Your task to perform on an android device: Add "macbook" to the cart on costco, then select checkout. Image 0: 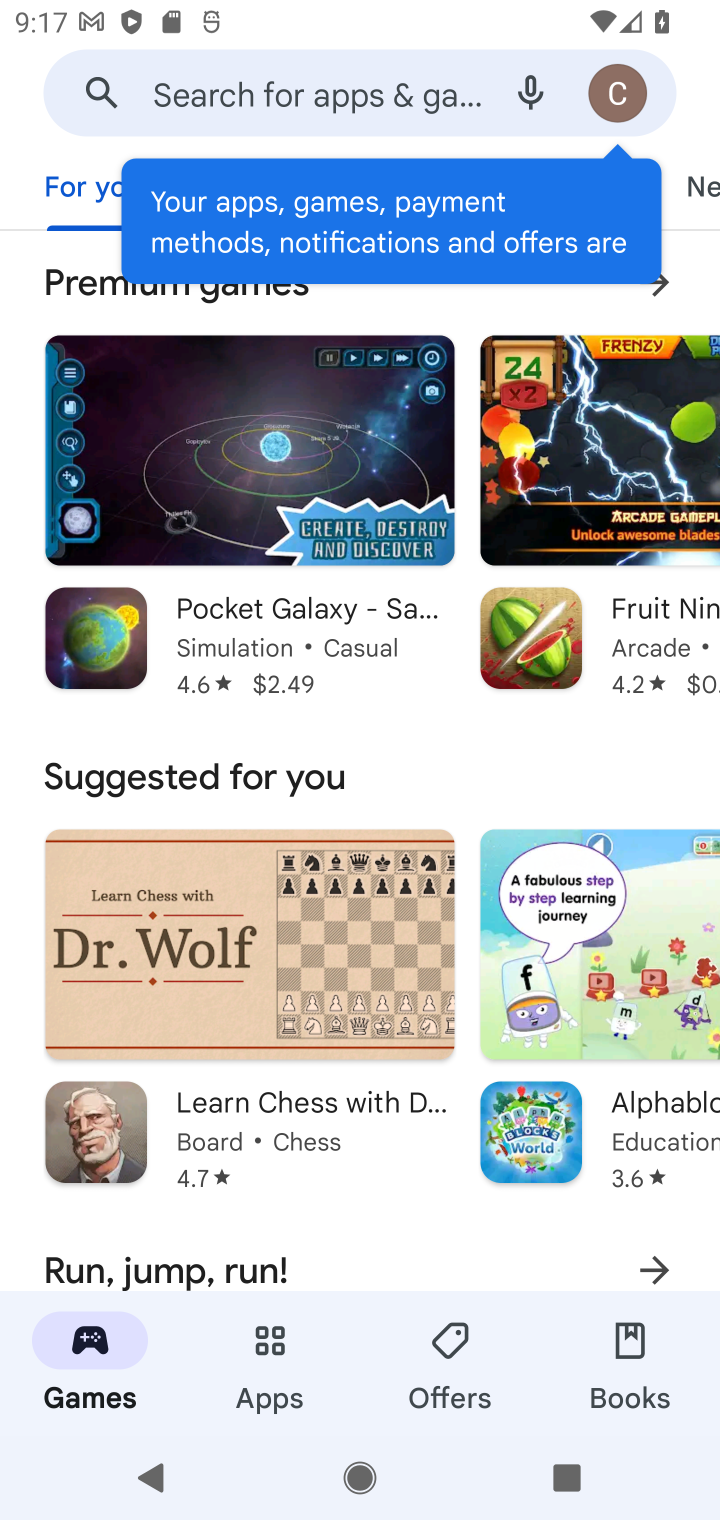
Step 0: press home button
Your task to perform on an android device: Add "macbook" to the cart on costco, then select checkout. Image 1: 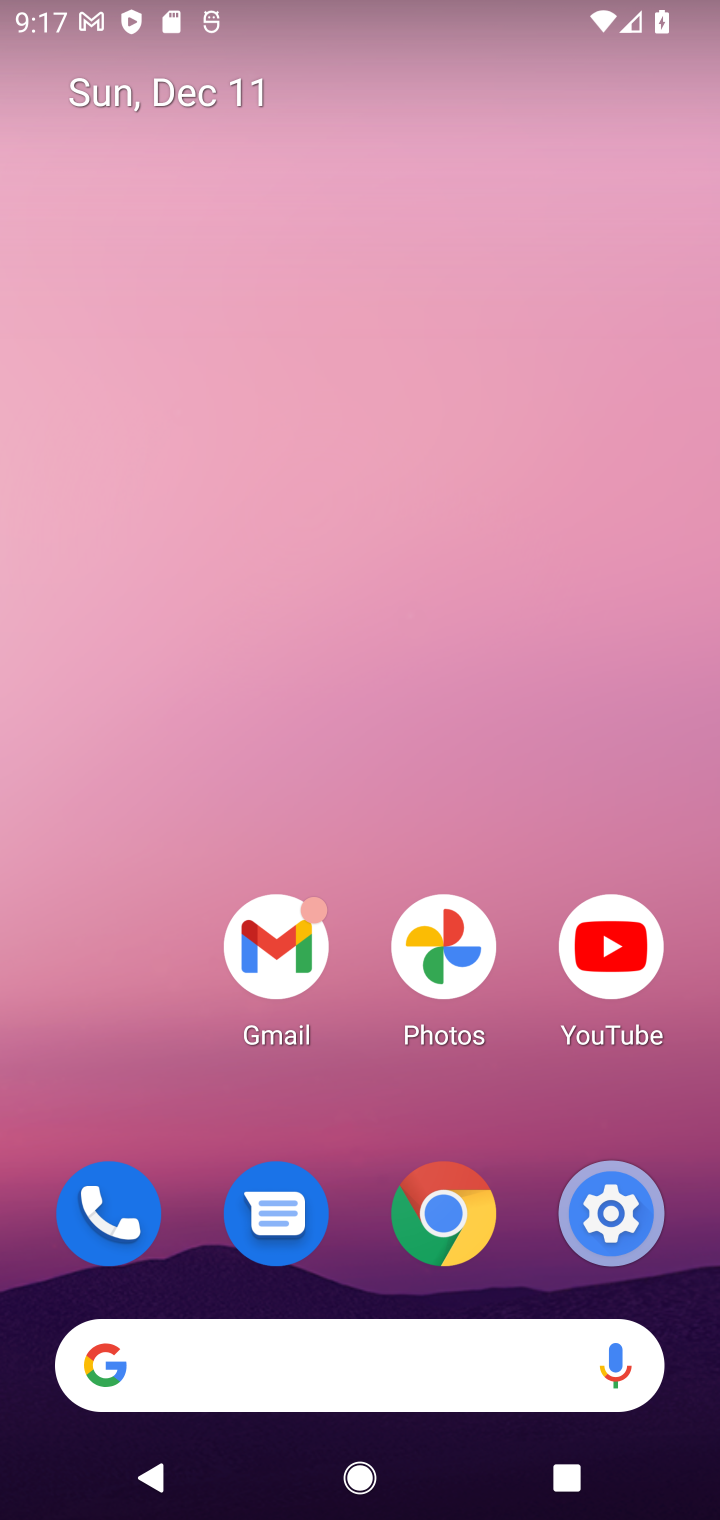
Step 1: click (456, 1325)
Your task to perform on an android device: Add "macbook" to the cart on costco, then select checkout. Image 2: 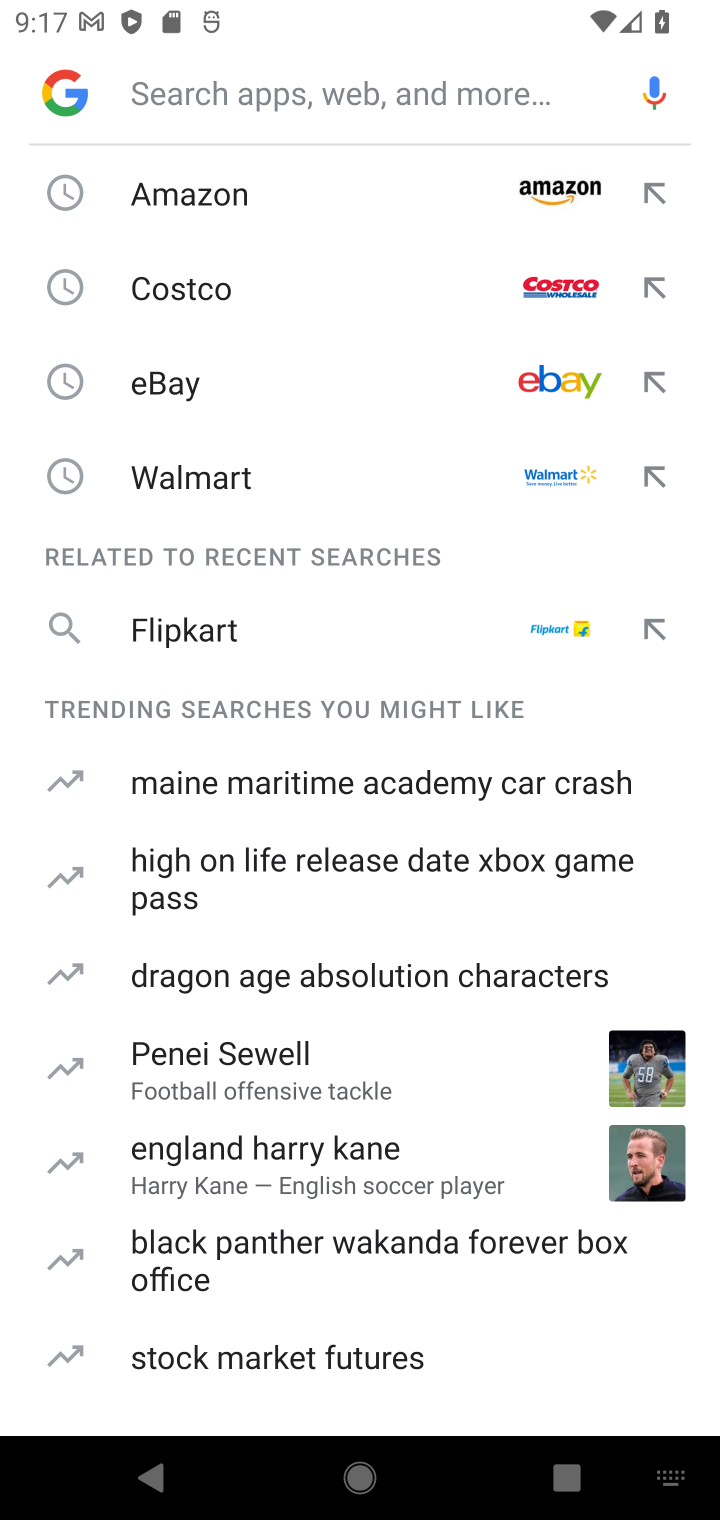
Step 2: click (301, 295)
Your task to perform on an android device: Add "macbook" to the cart on costco, then select checkout. Image 3: 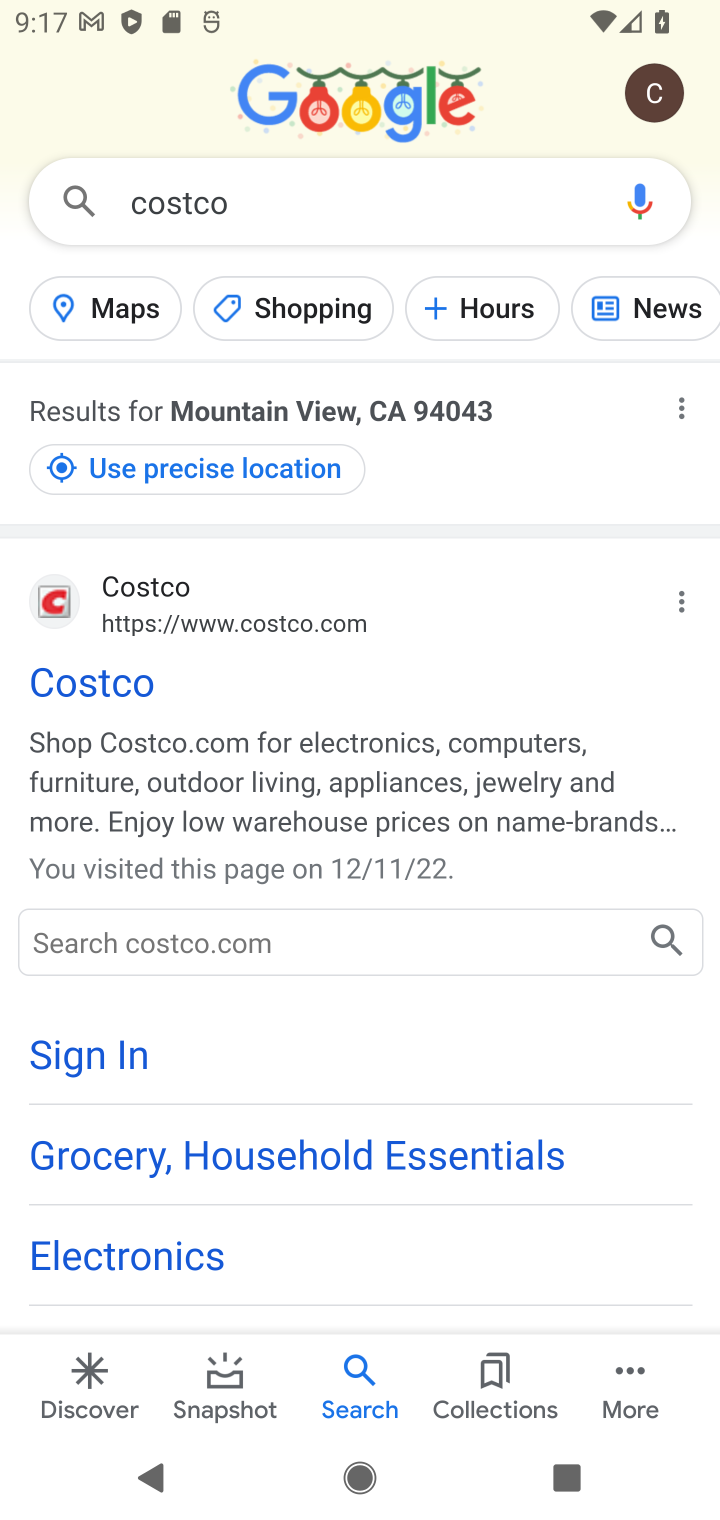
Step 3: click (67, 705)
Your task to perform on an android device: Add "macbook" to the cart on costco, then select checkout. Image 4: 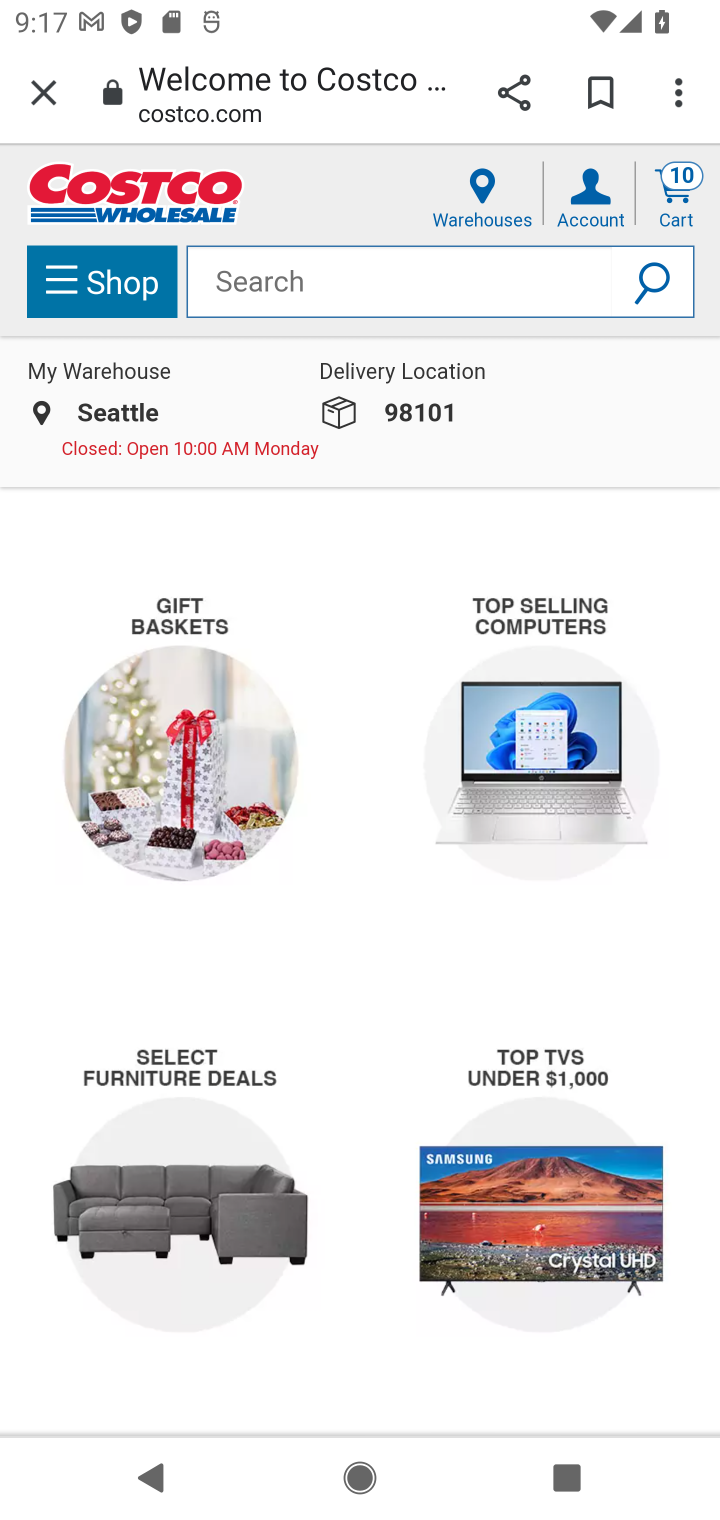
Step 4: click (371, 269)
Your task to perform on an android device: Add "macbook" to the cart on costco, then select checkout. Image 5: 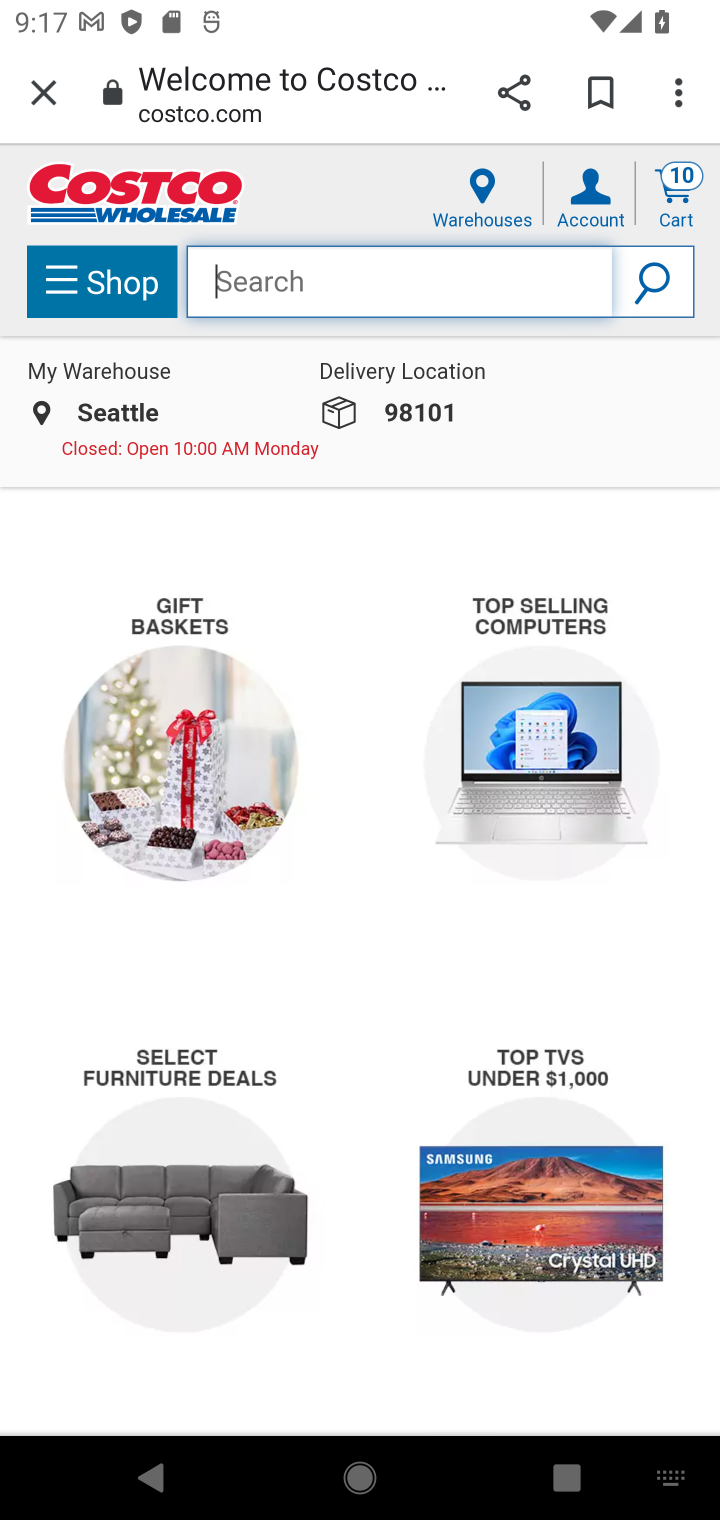
Step 5: type "macbook"
Your task to perform on an android device: Add "macbook" to the cart on costco, then select checkout. Image 6: 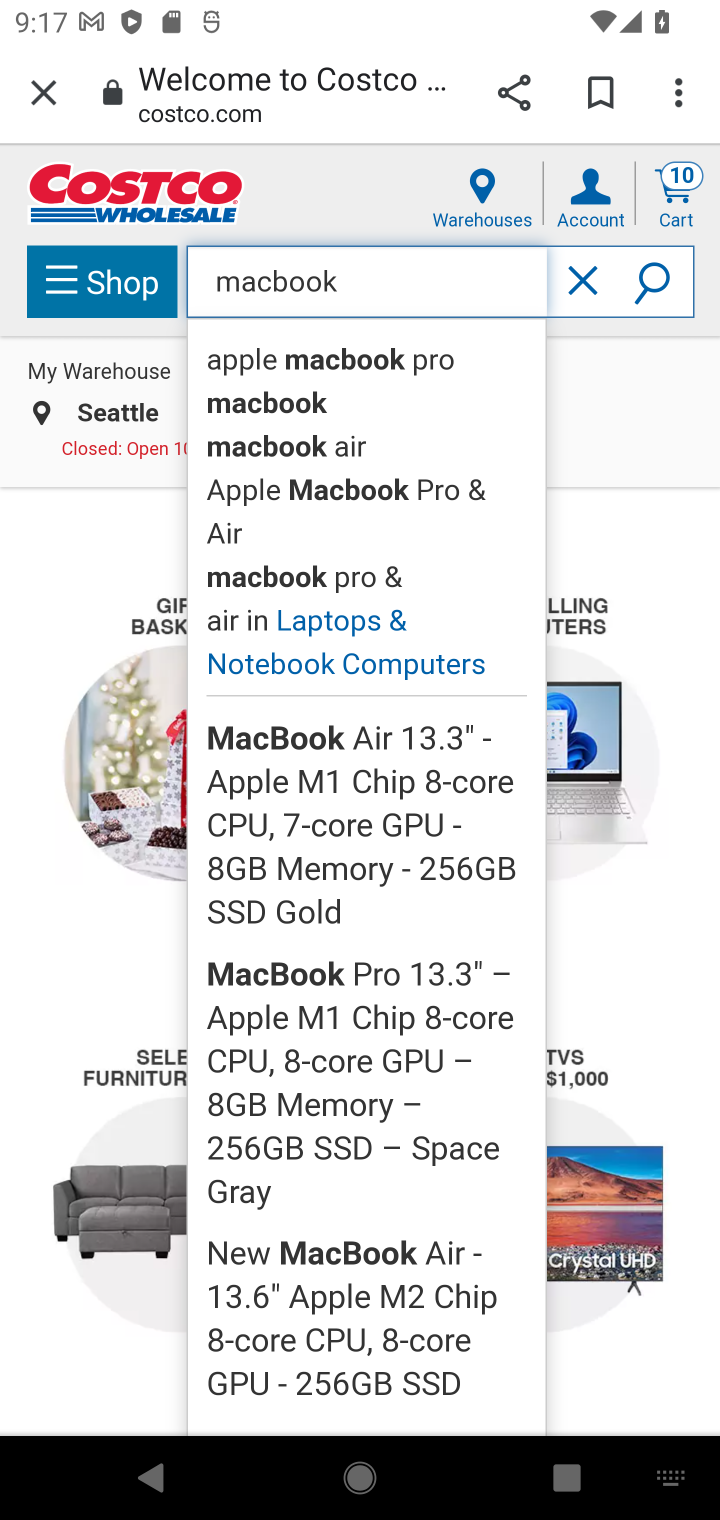
Step 6: click (650, 301)
Your task to perform on an android device: Add "macbook" to the cart on costco, then select checkout. Image 7: 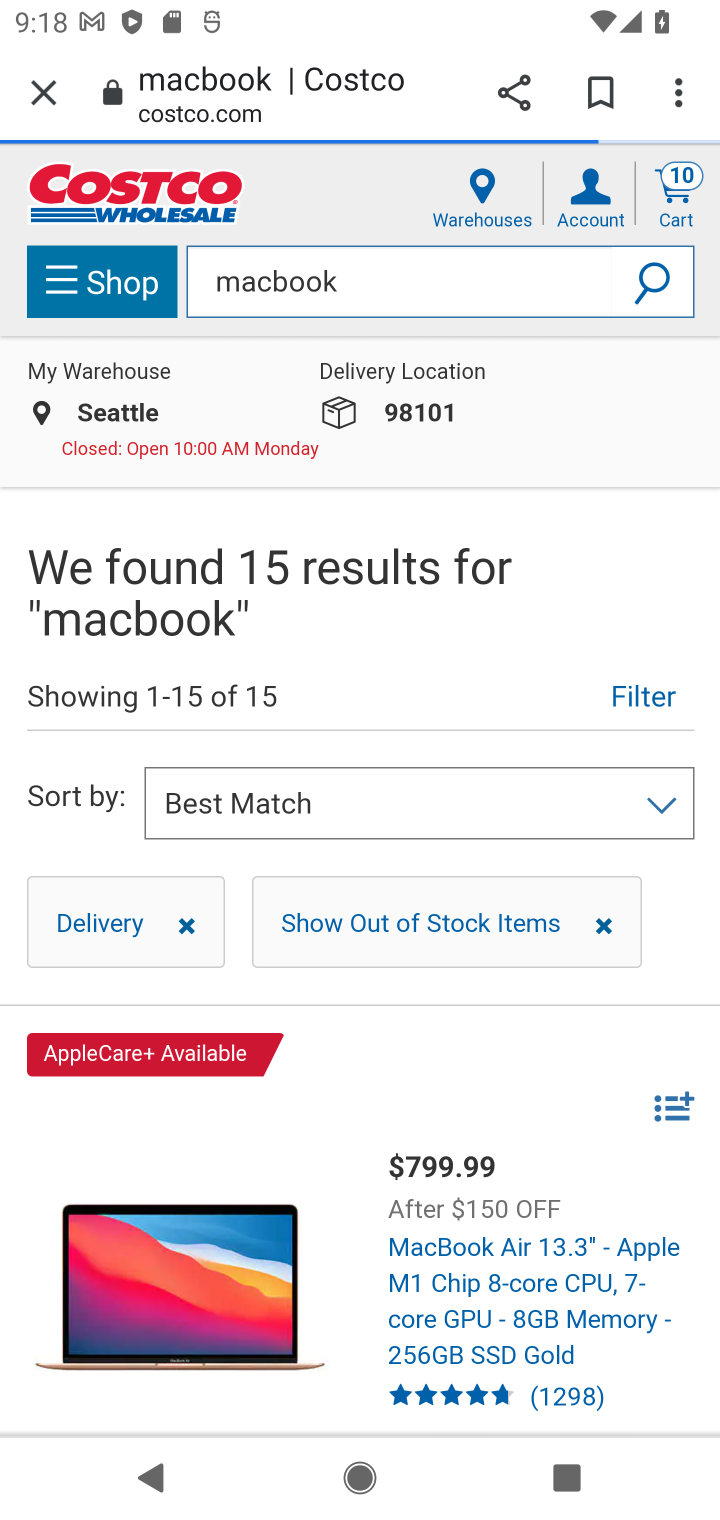
Step 7: click (345, 1236)
Your task to perform on an android device: Add "macbook" to the cart on costco, then select checkout. Image 8: 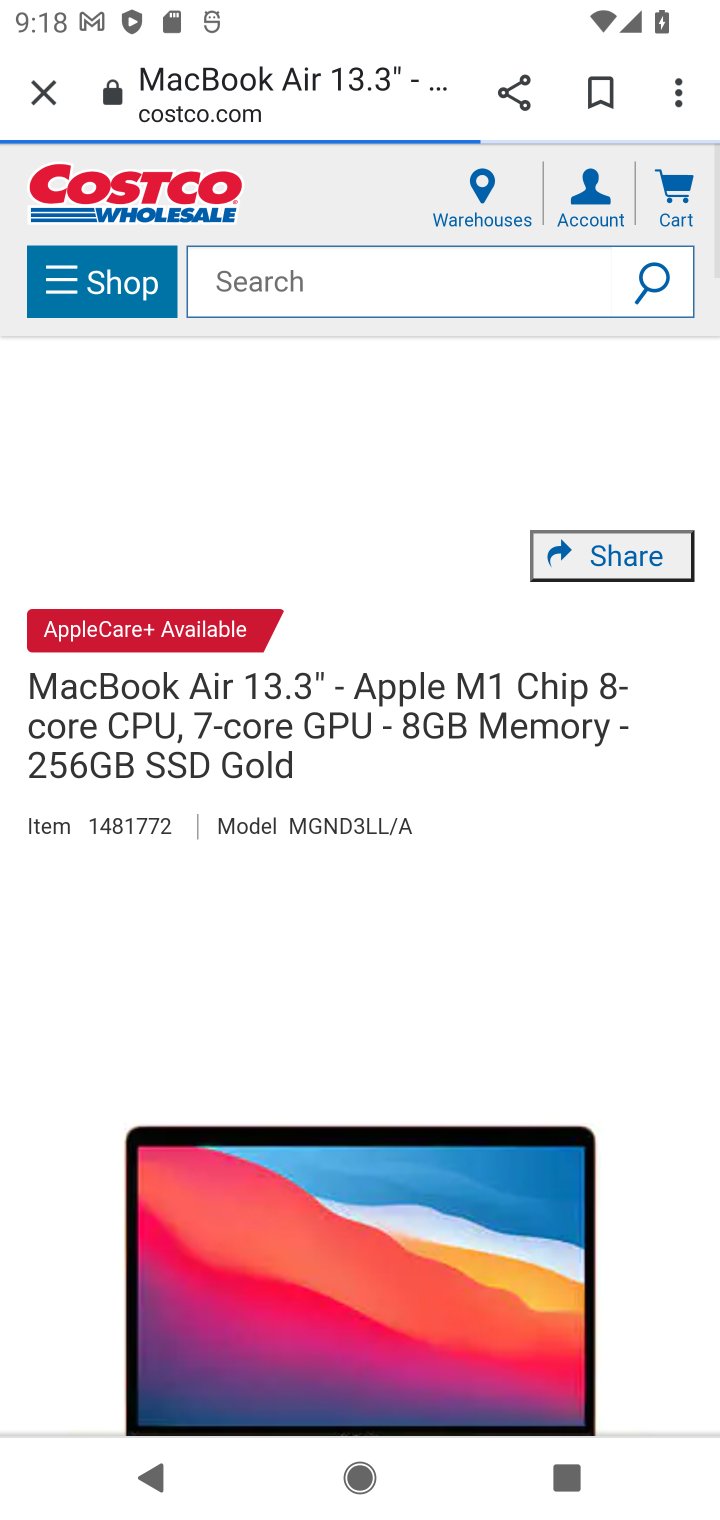
Step 8: drag from (393, 990) to (470, 323)
Your task to perform on an android device: Add "macbook" to the cart on costco, then select checkout. Image 9: 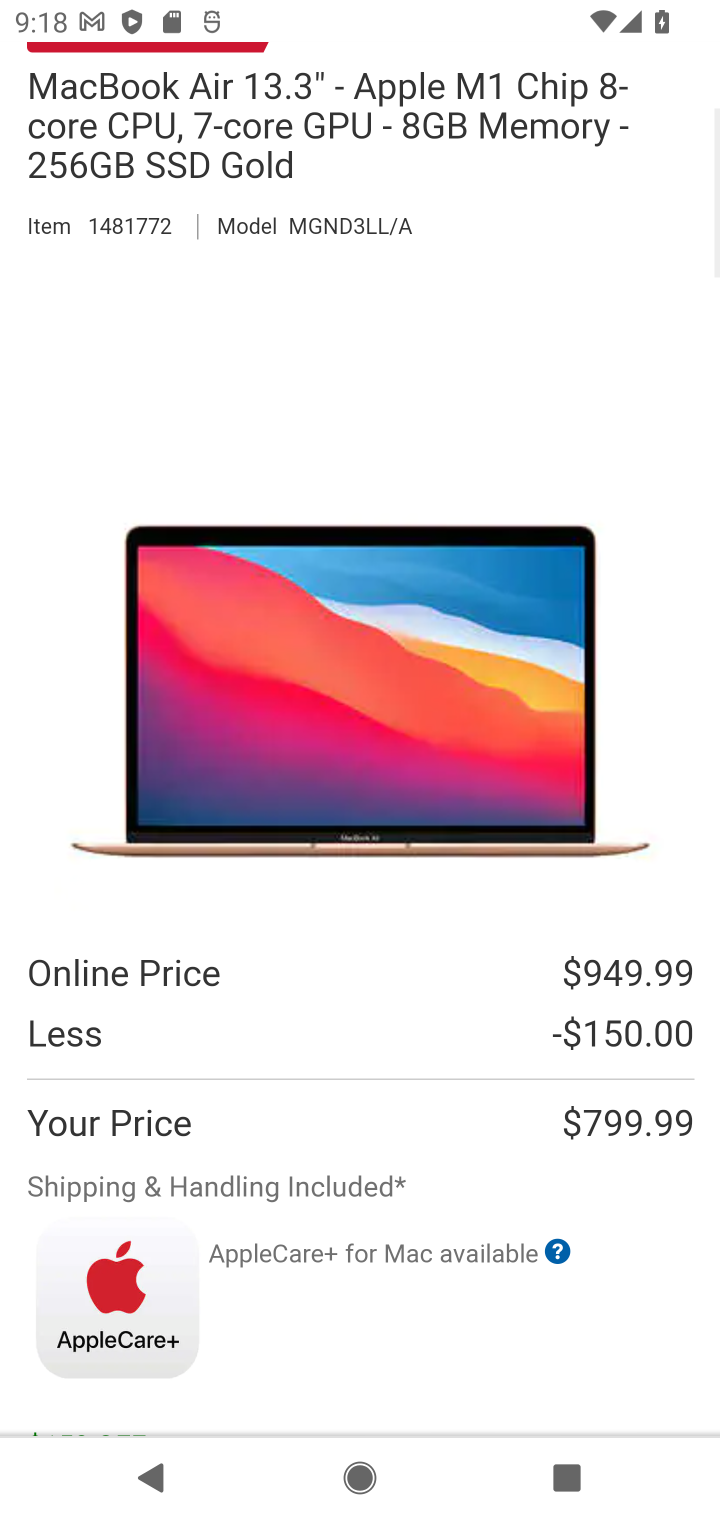
Step 9: drag from (344, 1291) to (421, 376)
Your task to perform on an android device: Add "macbook" to the cart on costco, then select checkout. Image 10: 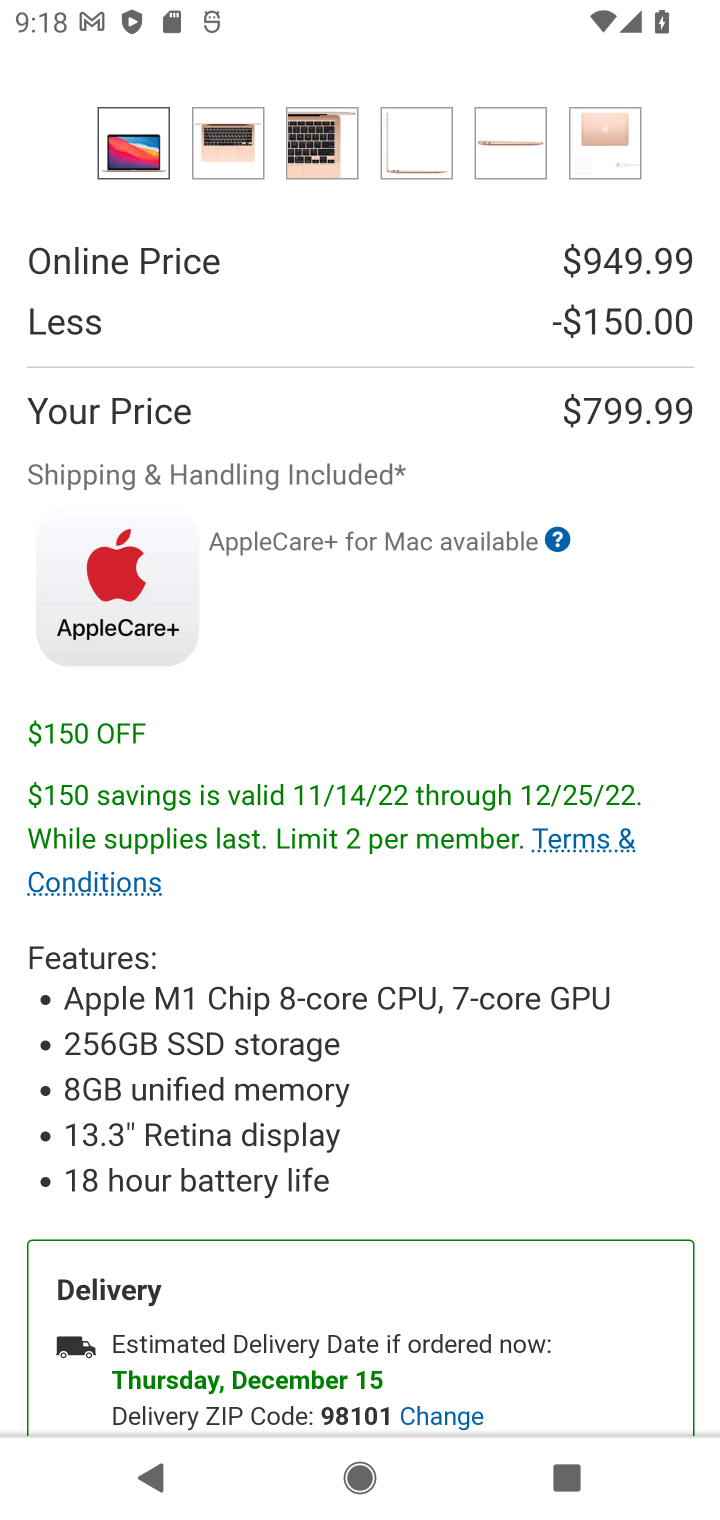
Step 10: drag from (358, 1311) to (380, 535)
Your task to perform on an android device: Add "macbook" to the cart on costco, then select checkout. Image 11: 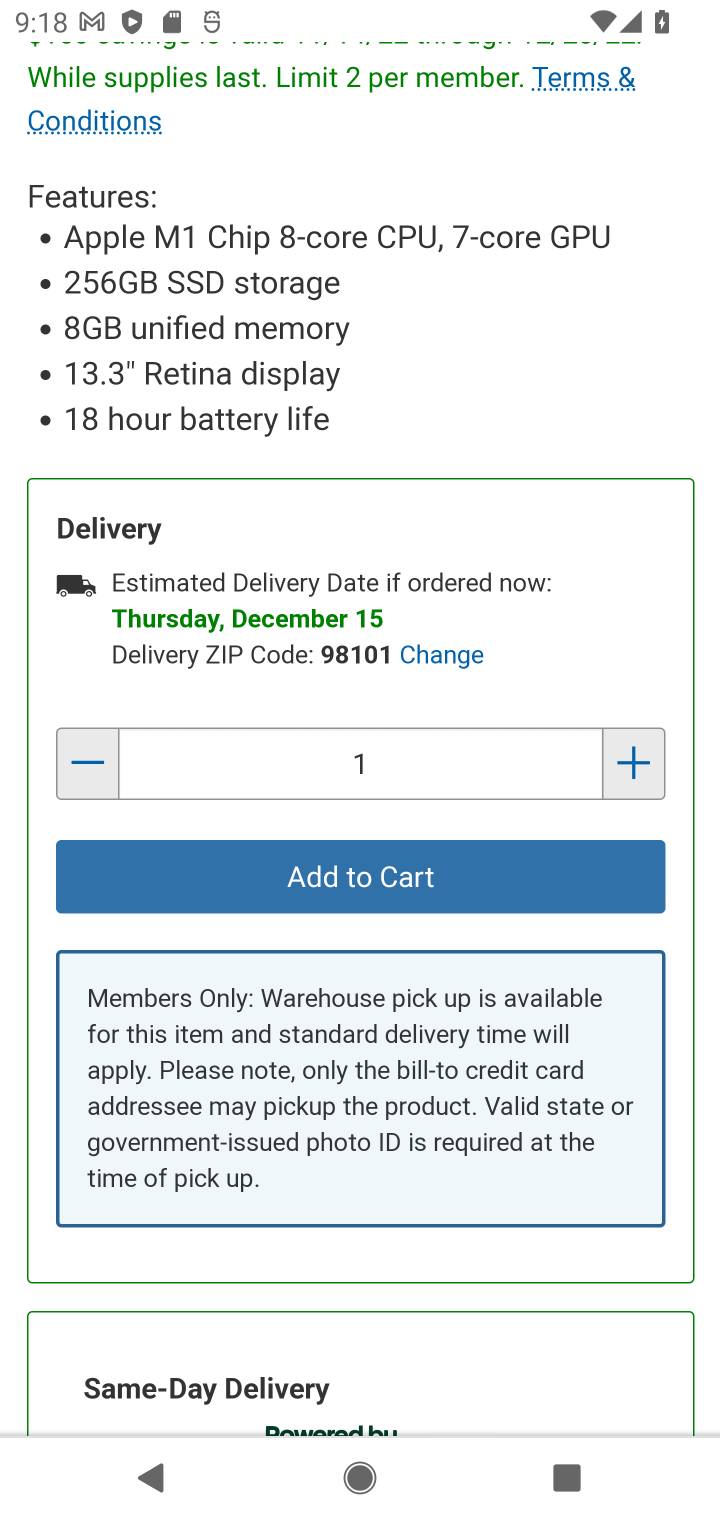
Step 11: click (365, 891)
Your task to perform on an android device: Add "macbook" to the cart on costco, then select checkout. Image 12: 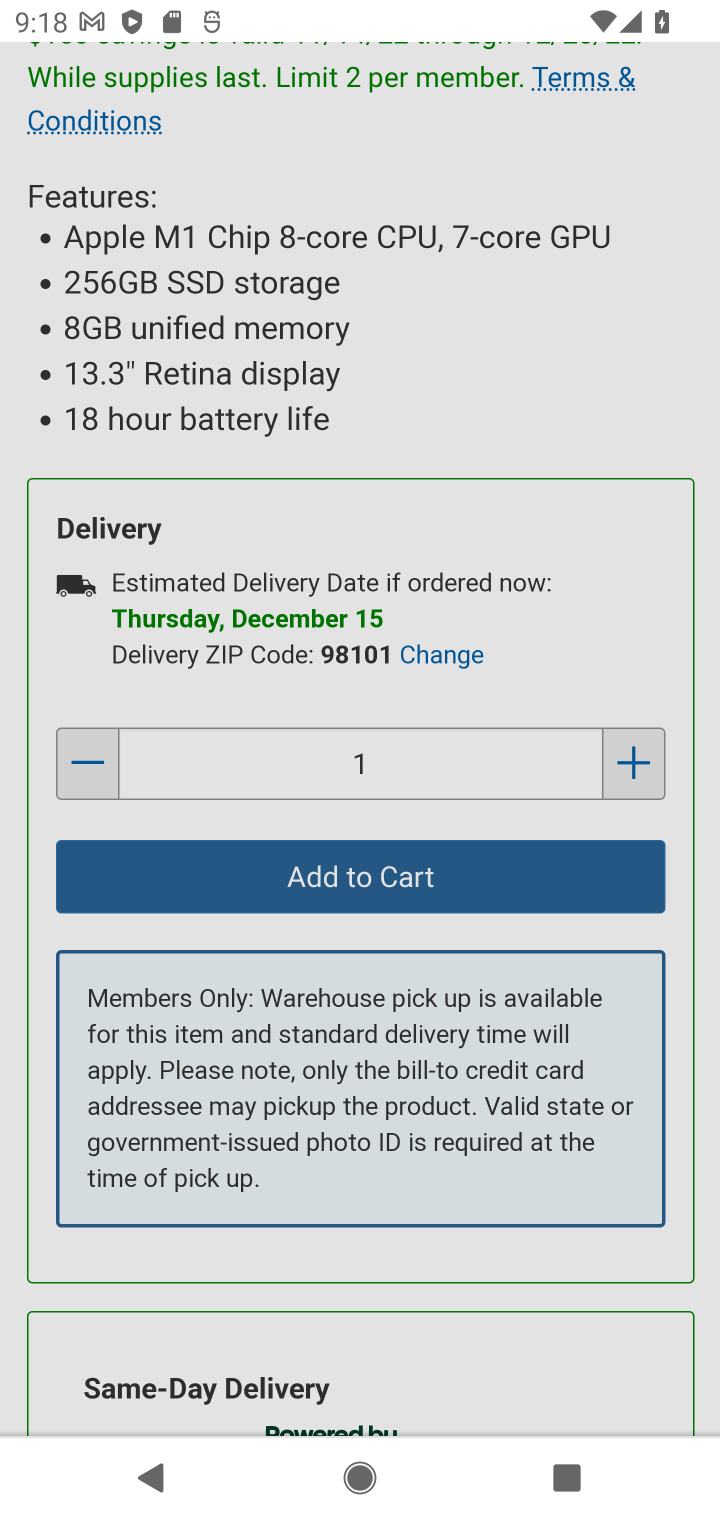
Step 12: task complete